Your task to perform on an android device: star an email in the gmail app Image 0: 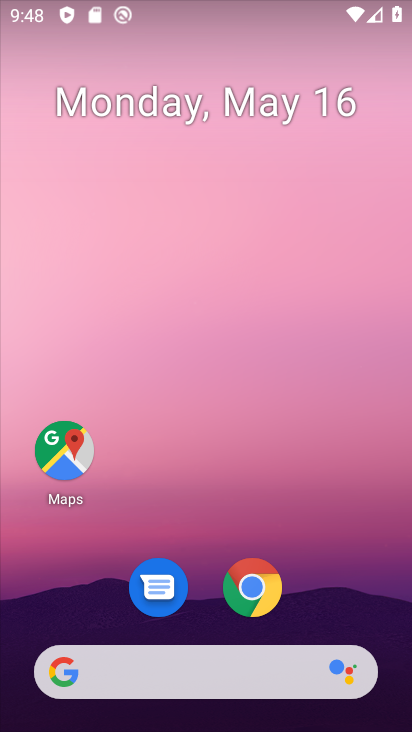
Step 0: drag from (219, 635) to (196, 7)
Your task to perform on an android device: star an email in the gmail app Image 1: 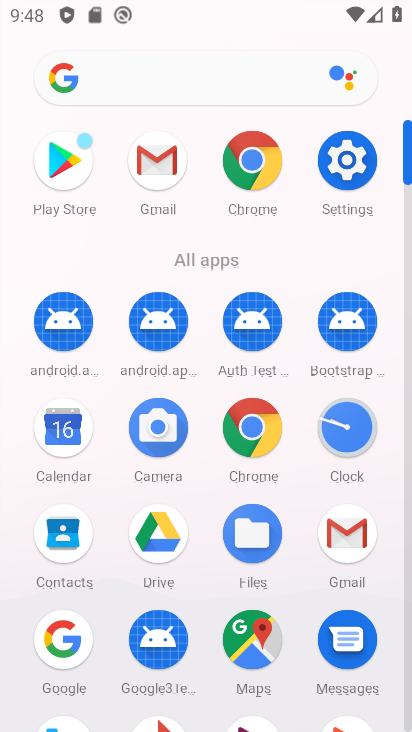
Step 1: click (353, 525)
Your task to perform on an android device: star an email in the gmail app Image 2: 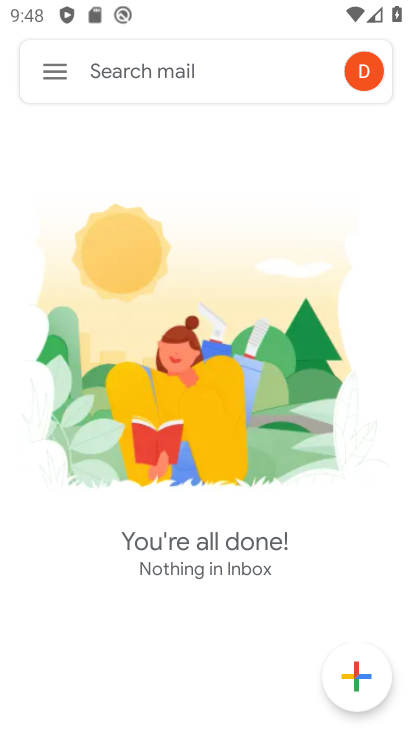
Step 2: click (55, 73)
Your task to perform on an android device: star an email in the gmail app Image 3: 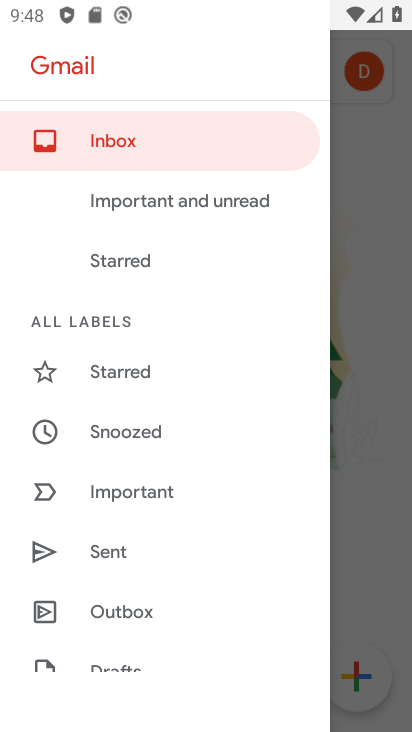
Step 3: drag from (116, 630) to (93, 323)
Your task to perform on an android device: star an email in the gmail app Image 4: 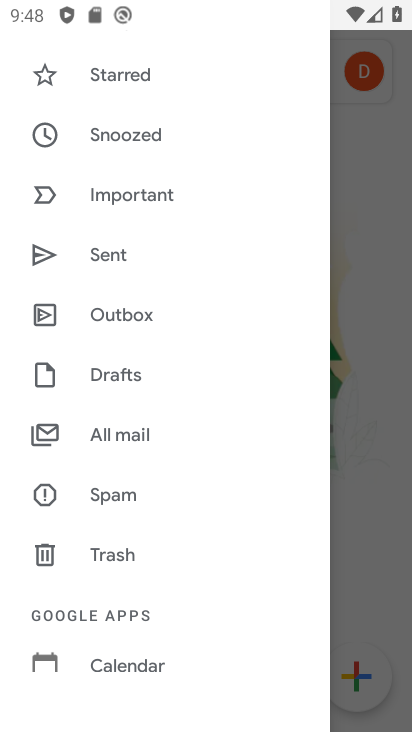
Step 4: click (124, 439)
Your task to perform on an android device: star an email in the gmail app Image 5: 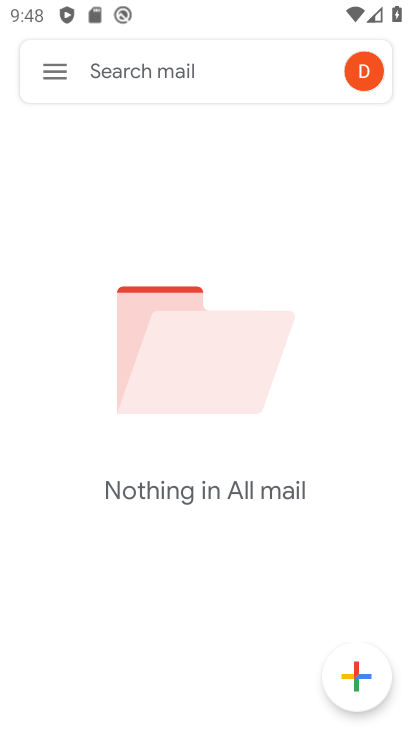
Step 5: task complete